Your task to perform on an android device: open sync settings in chrome Image 0: 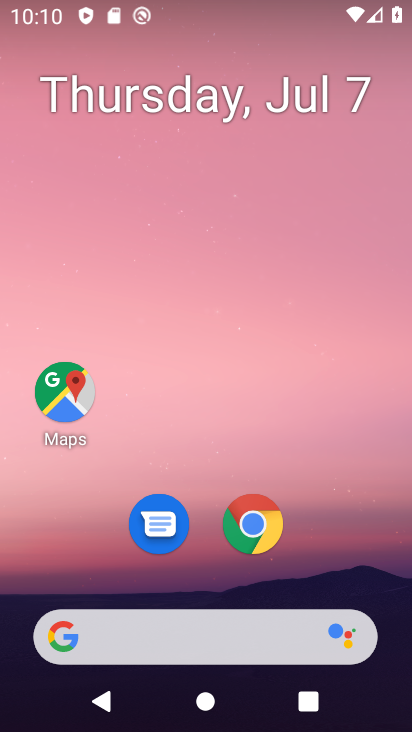
Step 0: click (252, 525)
Your task to perform on an android device: open sync settings in chrome Image 1: 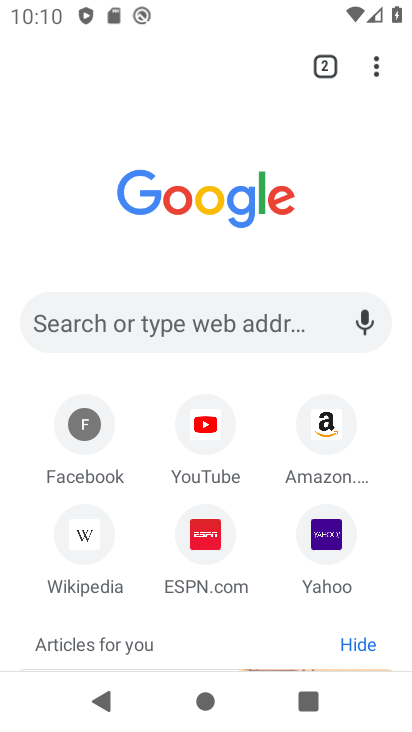
Step 1: click (373, 66)
Your task to perform on an android device: open sync settings in chrome Image 2: 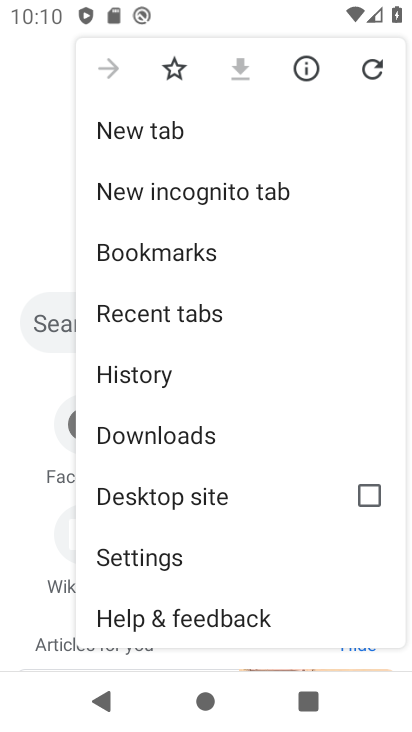
Step 2: click (179, 554)
Your task to perform on an android device: open sync settings in chrome Image 3: 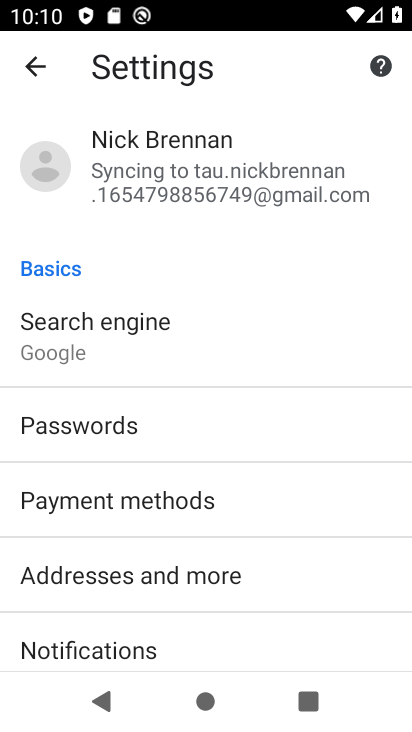
Step 3: click (222, 160)
Your task to perform on an android device: open sync settings in chrome Image 4: 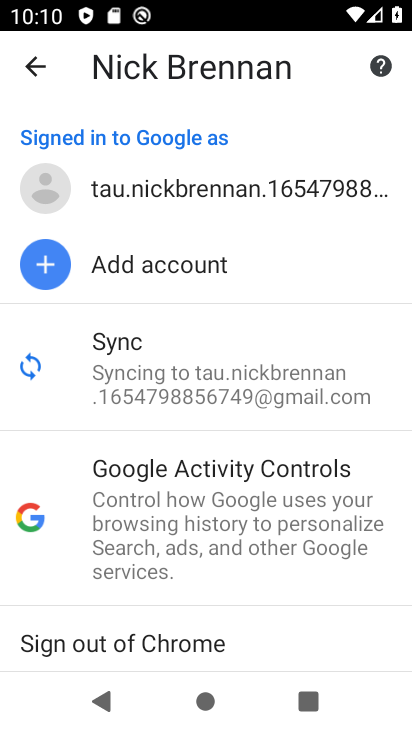
Step 4: click (220, 363)
Your task to perform on an android device: open sync settings in chrome Image 5: 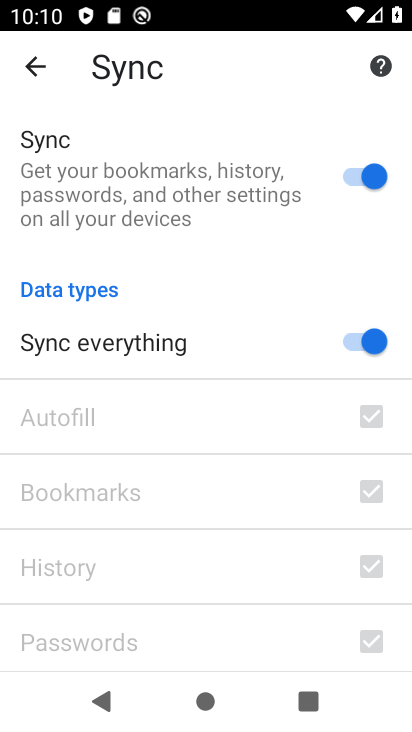
Step 5: task complete